Your task to perform on an android device: Go to battery settings Image 0: 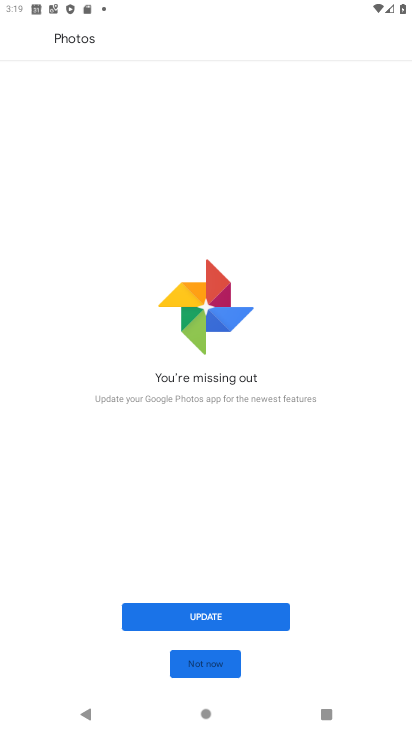
Step 0: press home button
Your task to perform on an android device: Go to battery settings Image 1: 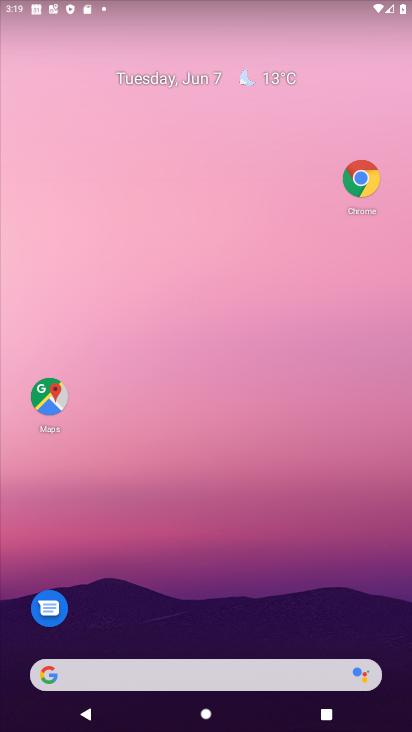
Step 1: drag from (156, 650) to (236, 266)
Your task to perform on an android device: Go to battery settings Image 2: 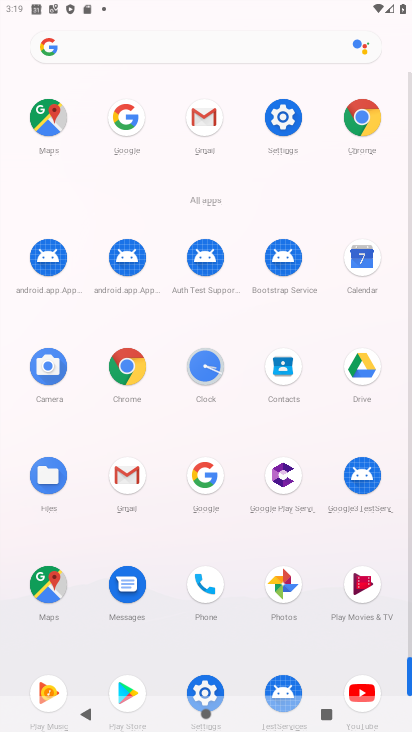
Step 2: click (204, 680)
Your task to perform on an android device: Go to battery settings Image 3: 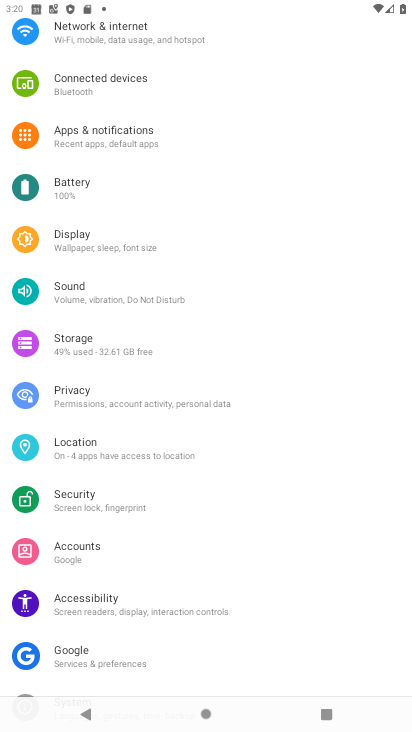
Step 3: click (102, 186)
Your task to perform on an android device: Go to battery settings Image 4: 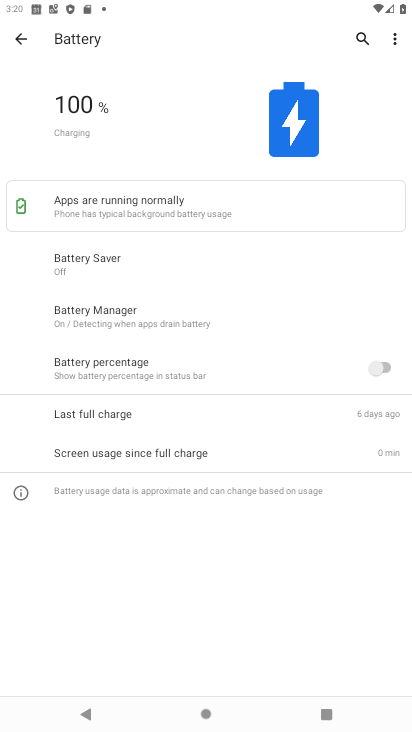
Step 4: task complete